Your task to perform on an android device: show emergency info Image 0: 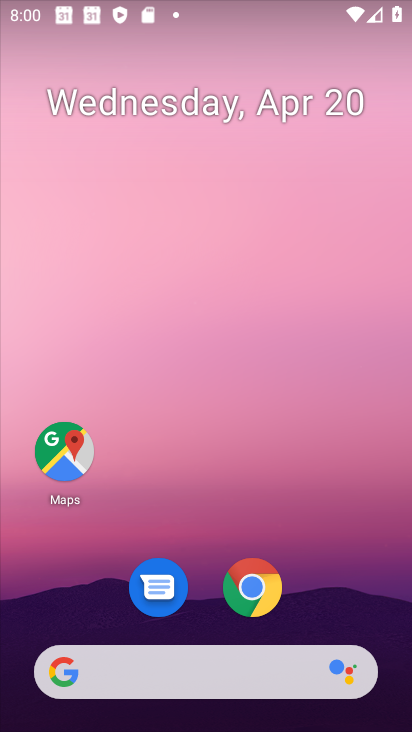
Step 0: drag from (372, 588) to (350, 204)
Your task to perform on an android device: show emergency info Image 1: 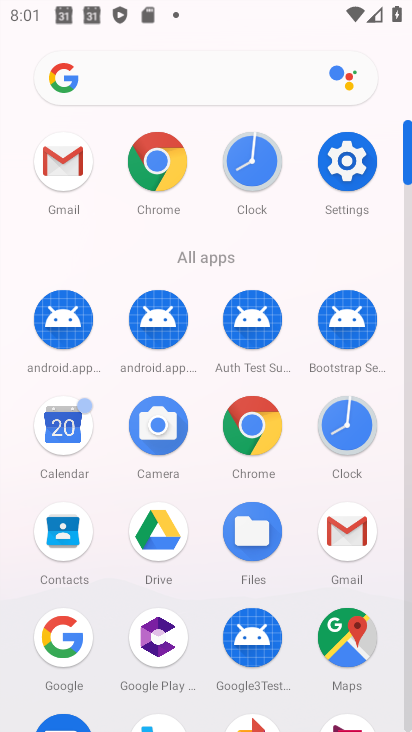
Step 1: click (367, 173)
Your task to perform on an android device: show emergency info Image 2: 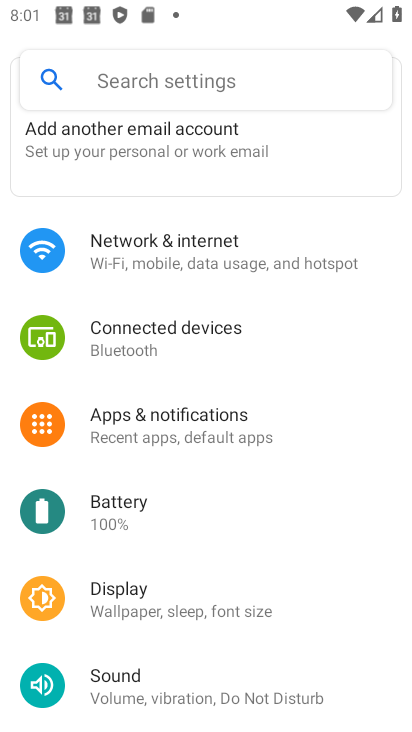
Step 2: drag from (372, 620) to (378, 423)
Your task to perform on an android device: show emergency info Image 3: 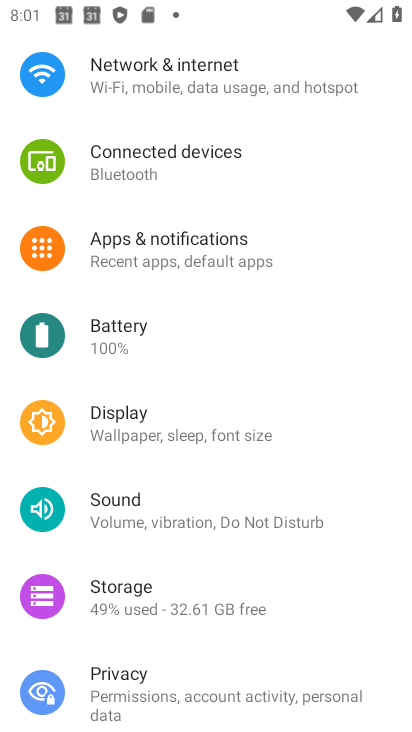
Step 3: drag from (373, 617) to (368, 437)
Your task to perform on an android device: show emergency info Image 4: 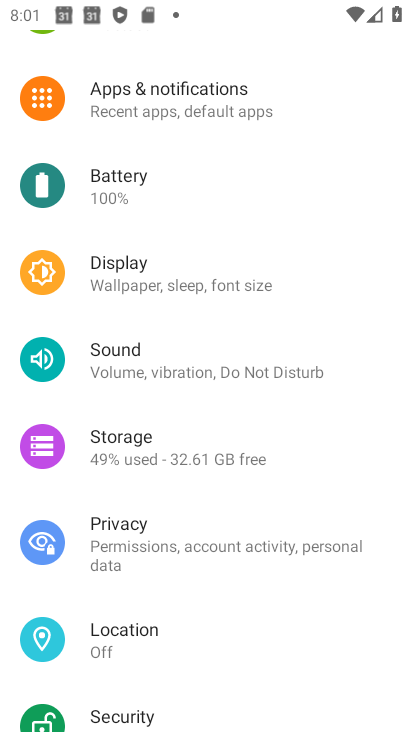
Step 4: drag from (369, 637) to (373, 424)
Your task to perform on an android device: show emergency info Image 5: 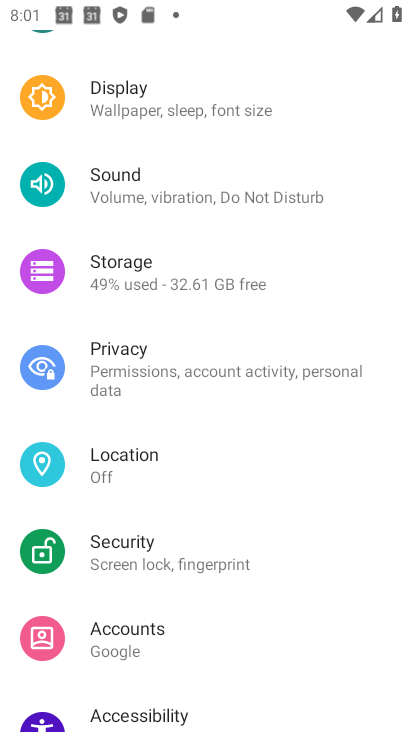
Step 5: drag from (365, 619) to (369, 397)
Your task to perform on an android device: show emergency info Image 6: 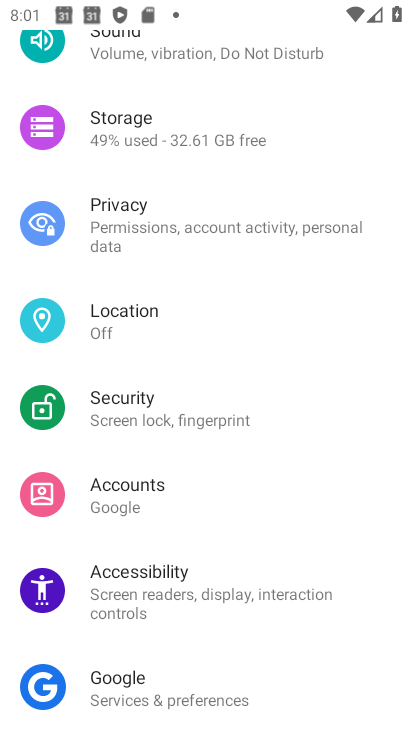
Step 6: drag from (343, 635) to (366, 372)
Your task to perform on an android device: show emergency info Image 7: 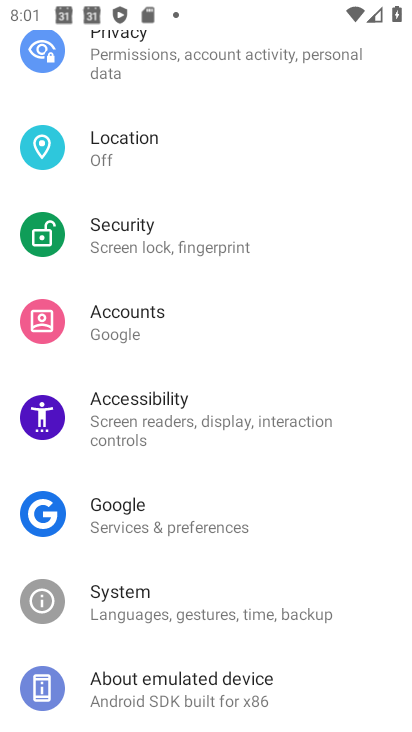
Step 7: drag from (361, 605) to (362, 397)
Your task to perform on an android device: show emergency info Image 8: 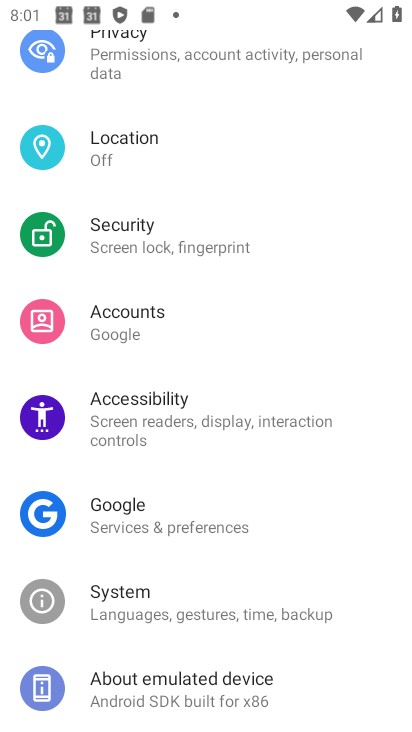
Step 8: click (246, 678)
Your task to perform on an android device: show emergency info Image 9: 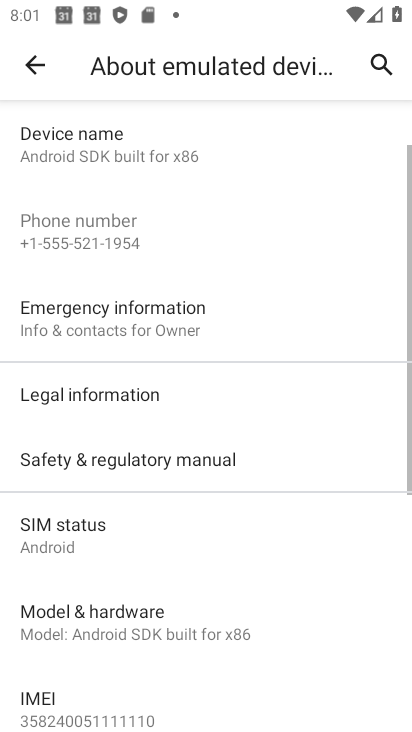
Step 9: drag from (336, 620) to (352, 404)
Your task to perform on an android device: show emergency info Image 10: 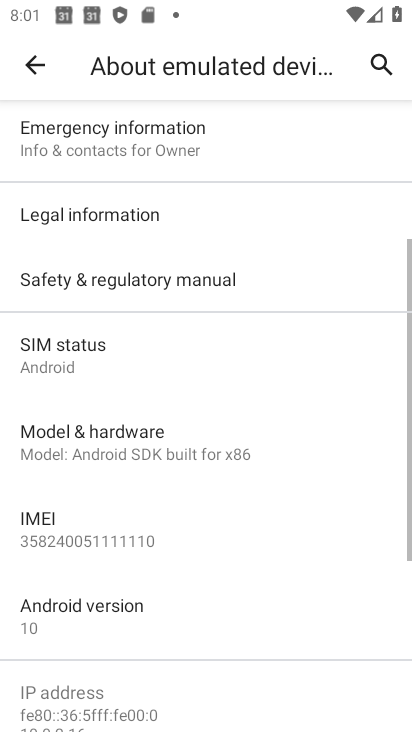
Step 10: drag from (357, 589) to (356, 480)
Your task to perform on an android device: show emergency info Image 11: 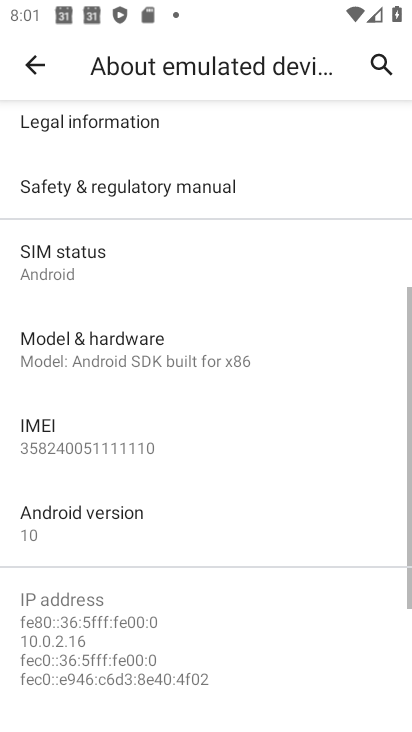
Step 11: drag from (329, 596) to (343, 360)
Your task to perform on an android device: show emergency info Image 12: 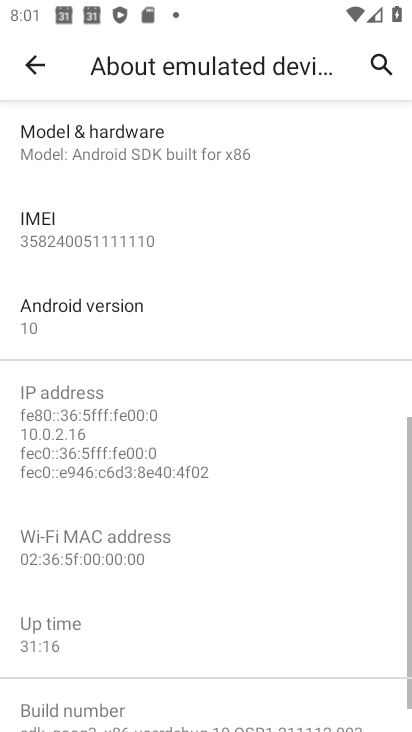
Step 12: drag from (321, 590) to (320, 391)
Your task to perform on an android device: show emergency info Image 13: 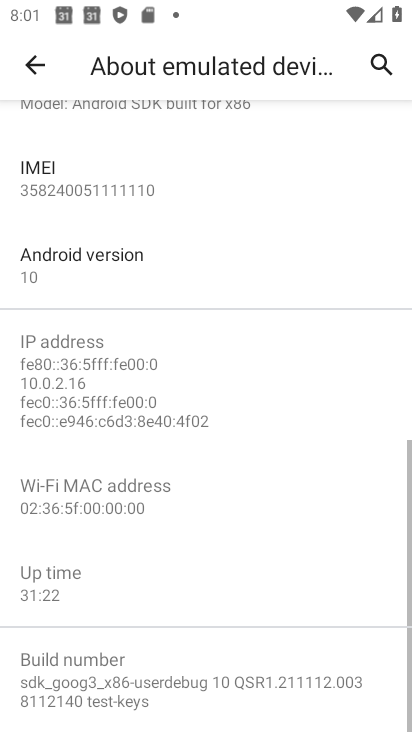
Step 13: drag from (347, 262) to (344, 467)
Your task to perform on an android device: show emergency info Image 14: 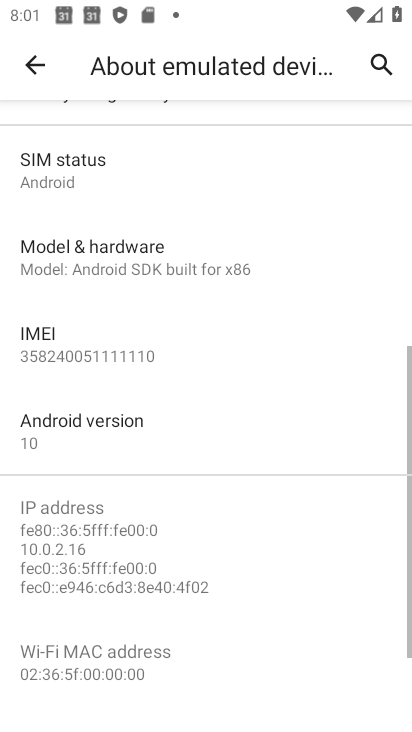
Step 14: drag from (345, 236) to (339, 450)
Your task to perform on an android device: show emergency info Image 15: 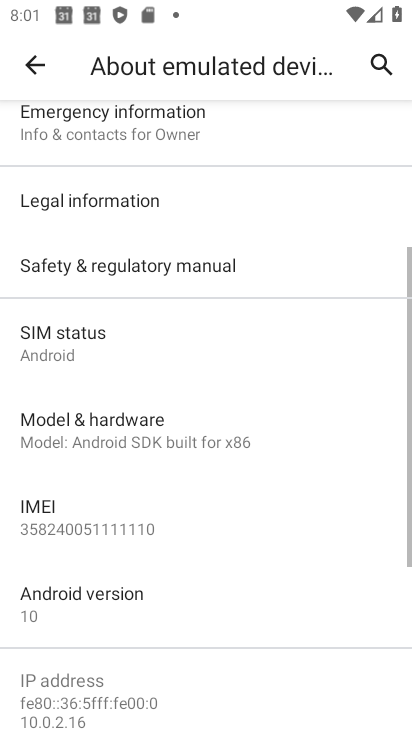
Step 15: drag from (345, 199) to (340, 434)
Your task to perform on an android device: show emergency info Image 16: 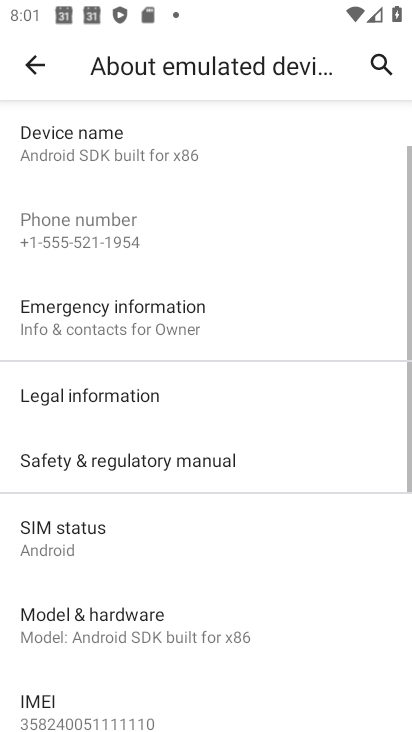
Step 16: click (180, 318)
Your task to perform on an android device: show emergency info Image 17: 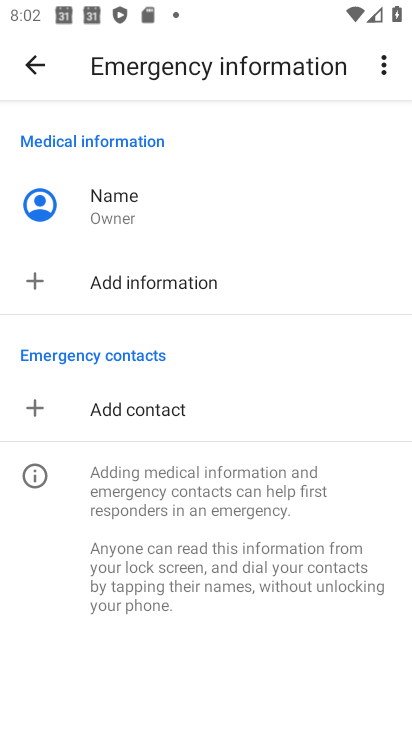
Step 17: task complete